Your task to perform on an android device: Open display settings Image 0: 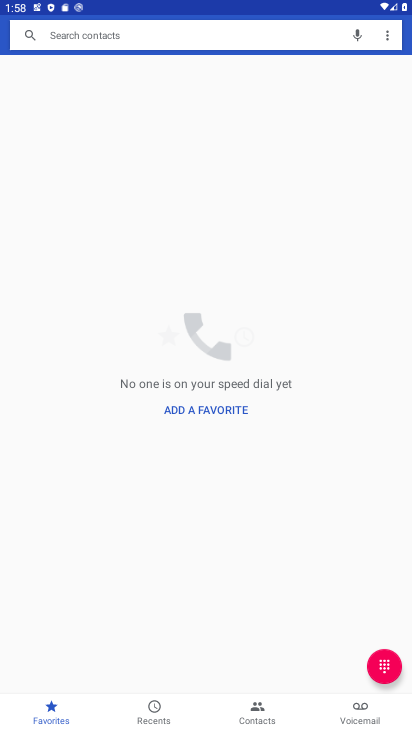
Step 0: press home button
Your task to perform on an android device: Open display settings Image 1: 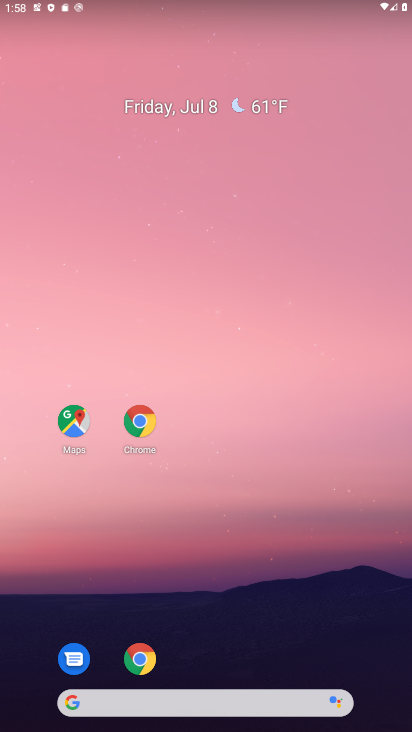
Step 1: drag from (223, 682) to (163, 112)
Your task to perform on an android device: Open display settings Image 2: 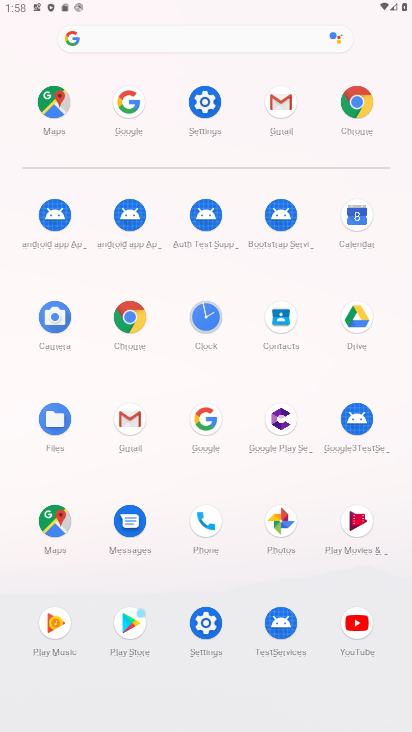
Step 2: click (202, 92)
Your task to perform on an android device: Open display settings Image 3: 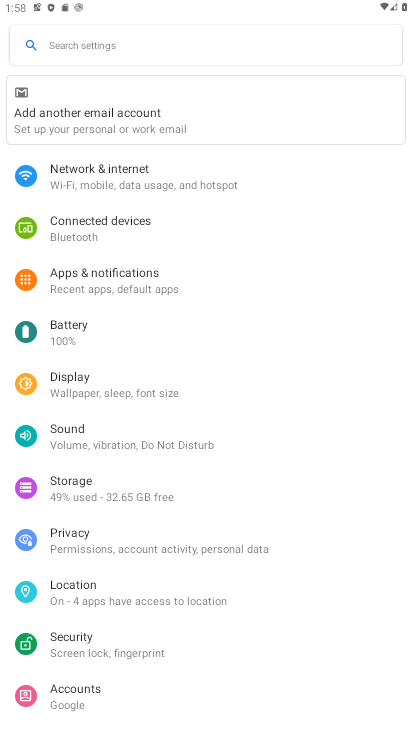
Step 3: click (94, 394)
Your task to perform on an android device: Open display settings Image 4: 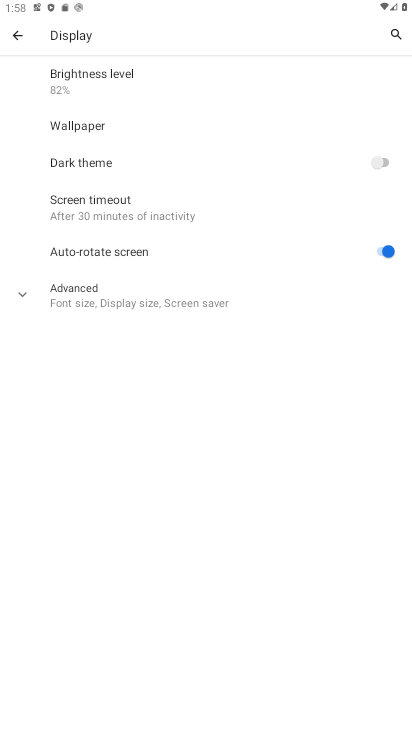
Step 4: click (84, 285)
Your task to perform on an android device: Open display settings Image 5: 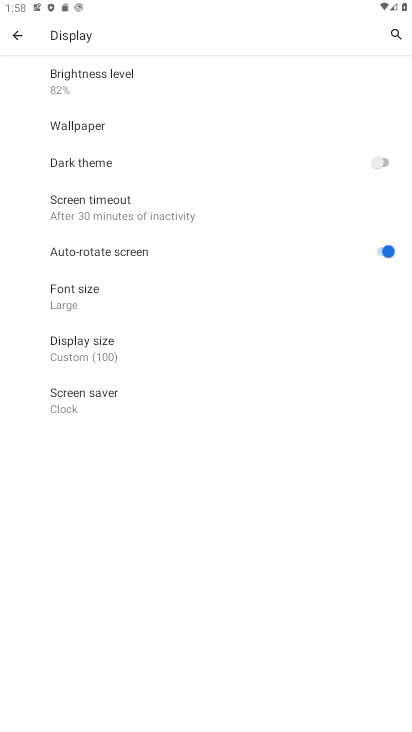
Step 5: task complete